Your task to perform on an android device: open a bookmark in the chrome app Image 0: 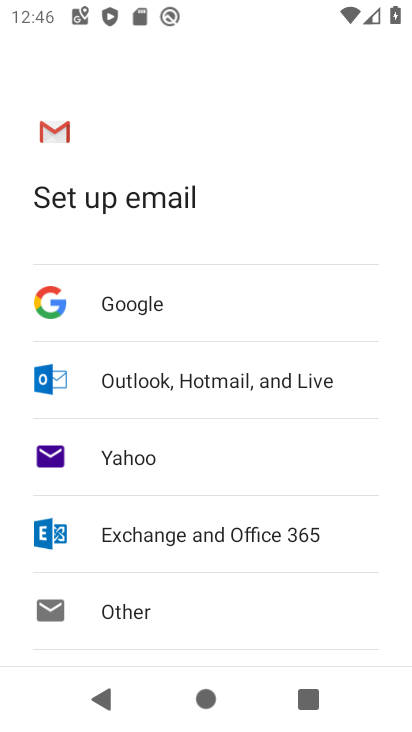
Step 0: press home button
Your task to perform on an android device: open a bookmark in the chrome app Image 1: 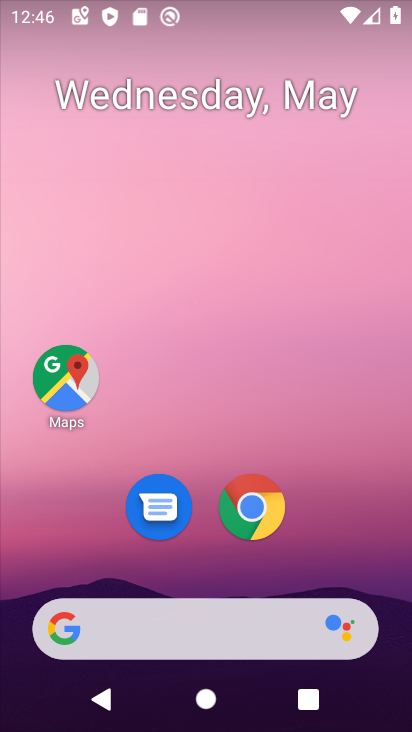
Step 1: click (253, 493)
Your task to perform on an android device: open a bookmark in the chrome app Image 2: 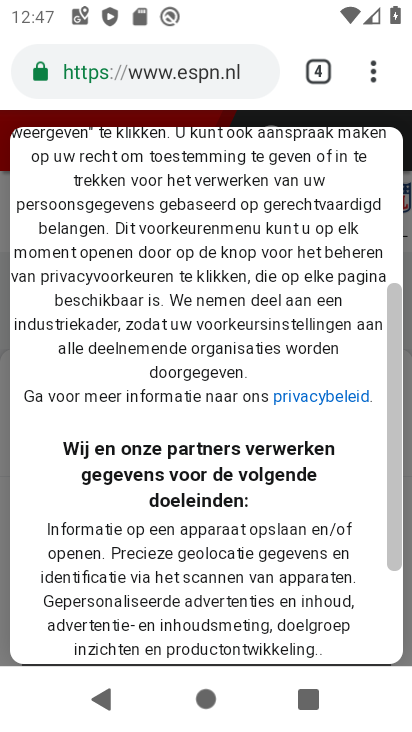
Step 2: click (371, 63)
Your task to perform on an android device: open a bookmark in the chrome app Image 3: 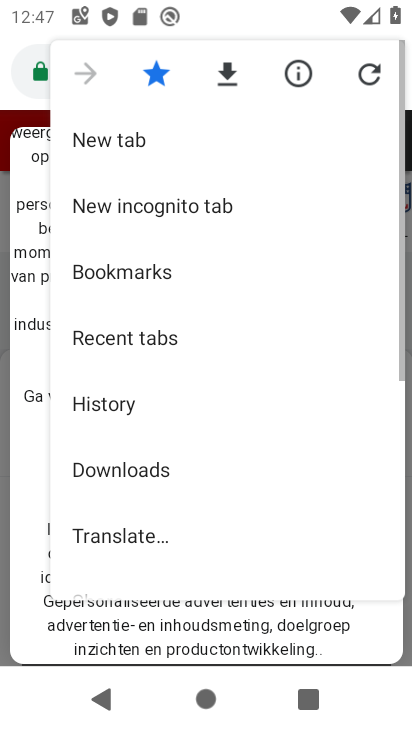
Step 3: click (148, 276)
Your task to perform on an android device: open a bookmark in the chrome app Image 4: 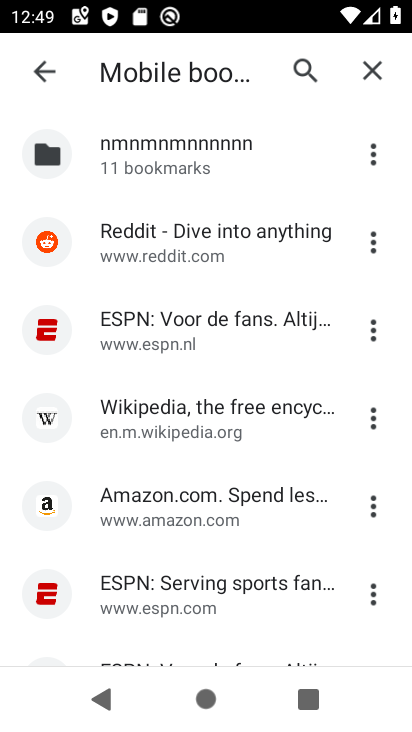
Step 4: task complete